Your task to perform on an android device: turn on airplane mode Image 0: 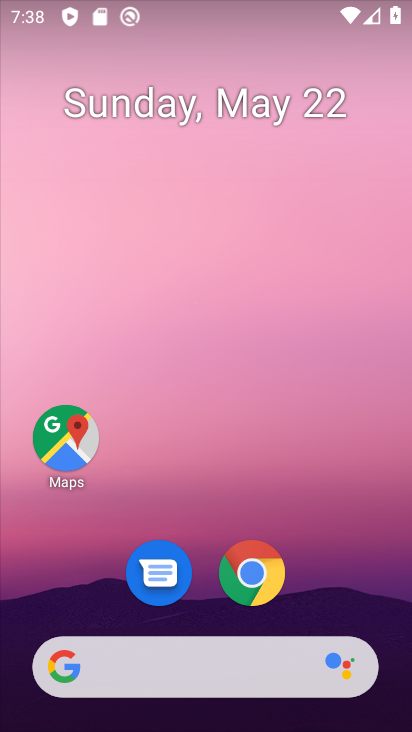
Step 0: drag from (335, 480) to (294, 114)
Your task to perform on an android device: turn on airplane mode Image 1: 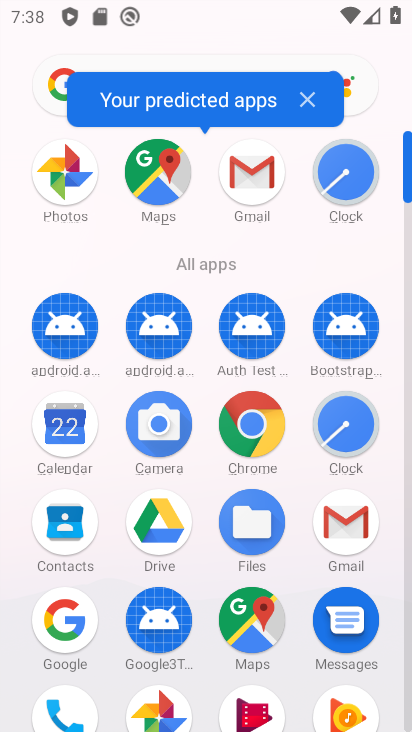
Step 1: drag from (171, 492) to (215, 241)
Your task to perform on an android device: turn on airplane mode Image 2: 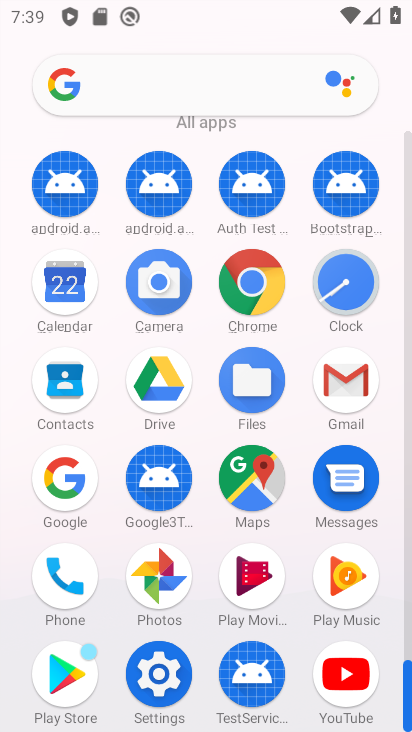
Step 2: click (162, 676)
Your task to perform on an android device: turn on airplane mode Image 3: 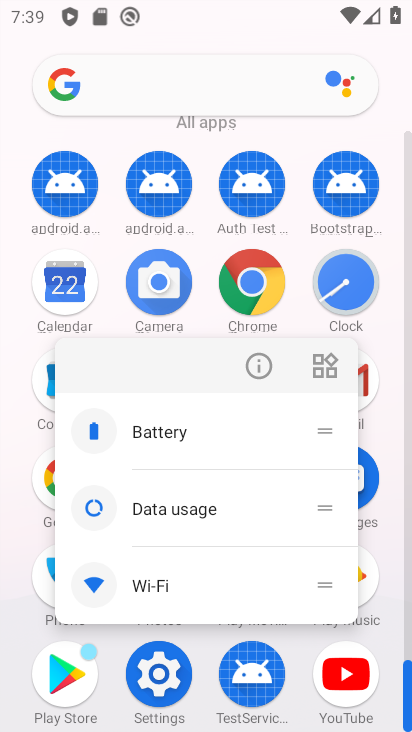
Step 3: click (162, 681)
Your task to perform on an android device: turn on airplane mode Image 4: 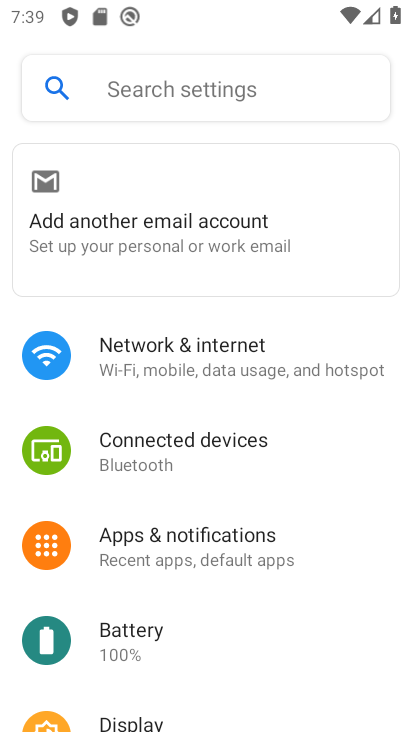
Step 4: click (208, 352)
Your task to perform on an android device: turn on airplane mode Image 5: 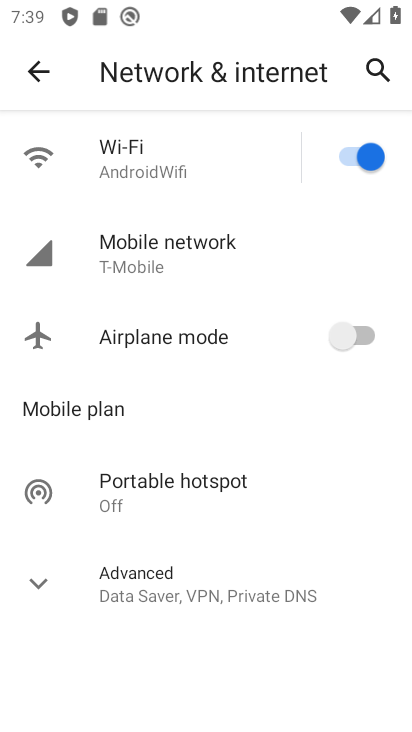
Step 5: click (366, 338)
Your task to perform on an android device: turn on airplane mode Image 6: 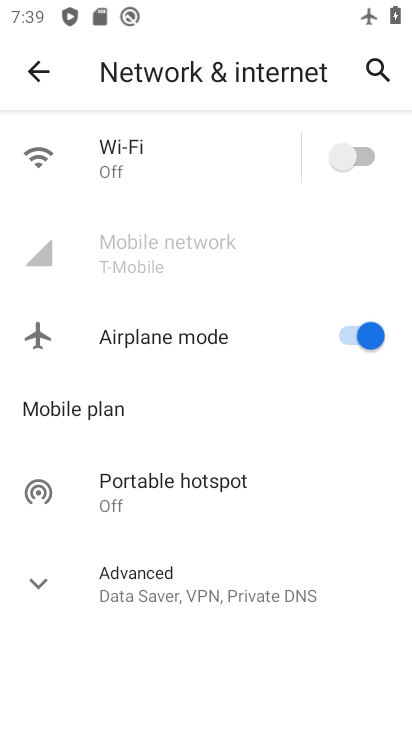
Step 6: task complete